Your task to perform on an android device: toggle data saver in the chrome app Image 0: 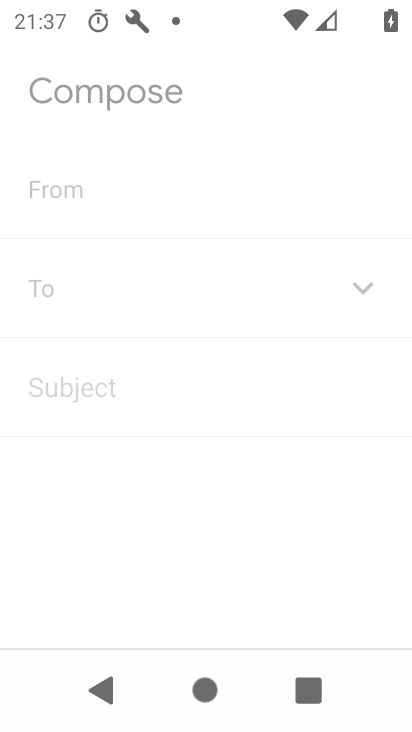
Step 0: drag from (268, 655) to (209, 178)
Your task to perform on an android device: toggle data saver in the chrome app Image 1: 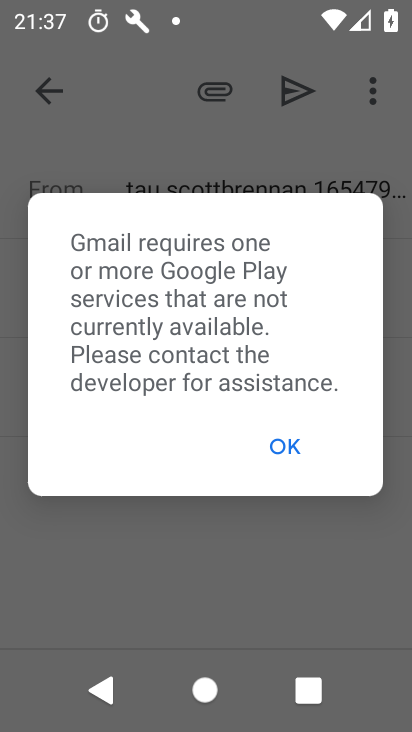
Step 1: press back button
Your task to perform on an android device: toggle data saver in the chrome app Image 2: 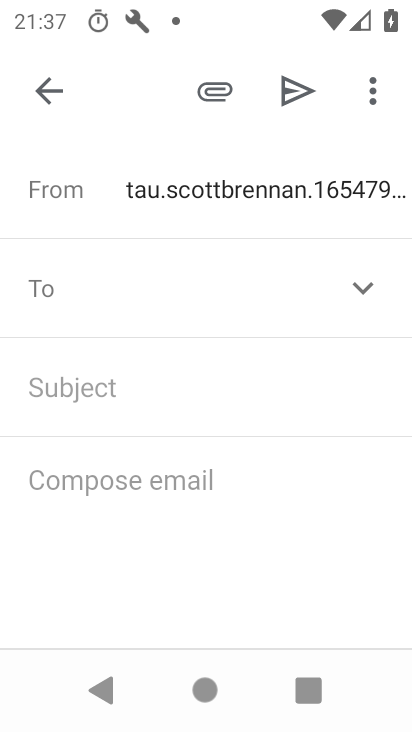
Step 2: click (46, 74)
Your task to perform on an android device: toggle data saver in the chrome app Image 3: 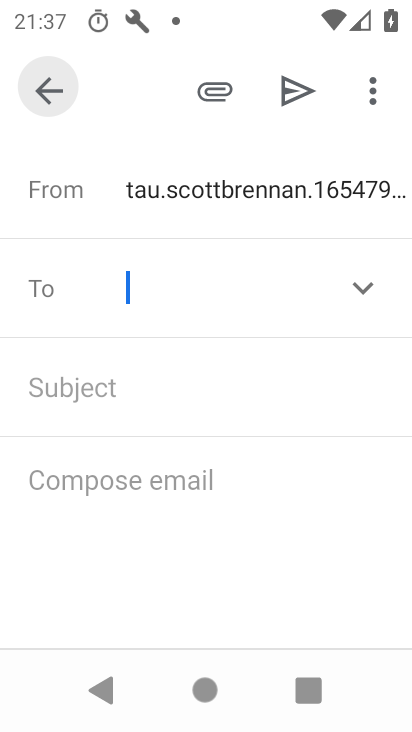
Step 3: click (47, 80)
Your task to perform on an android device: toggle data saver in the chrome app Image 4: 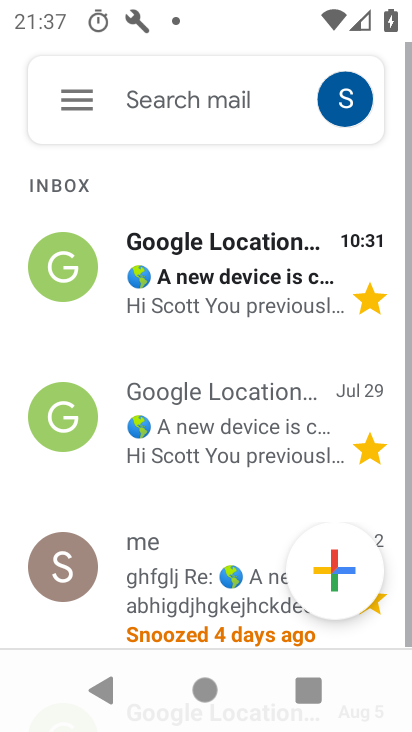
Step 4: press back button
Your task to perform on an android device: toggle data saver in the chrome app Image 5: 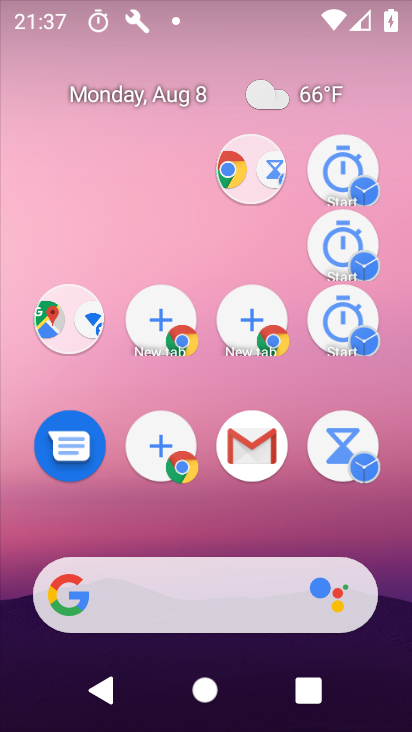
Step 5: drag from (223, 280) to (219, 220)
Your task to perform on an android device: toggle data saver in the chrome app Image 6: 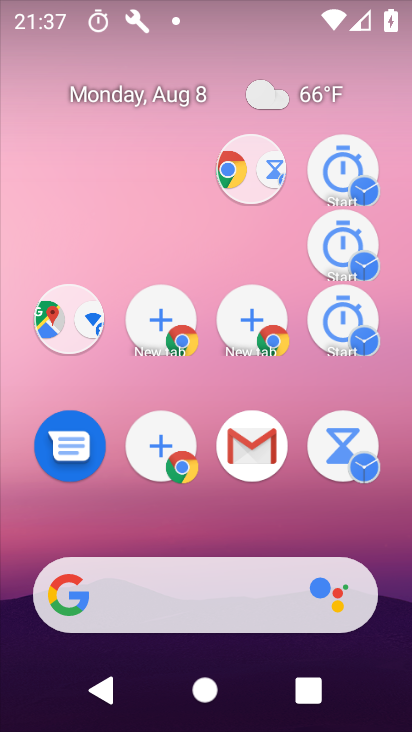
Step 6: drag from (252, 460) to (216, 203)
Your task to perform on an android device: toggle data saver in the chrome app Image 7: 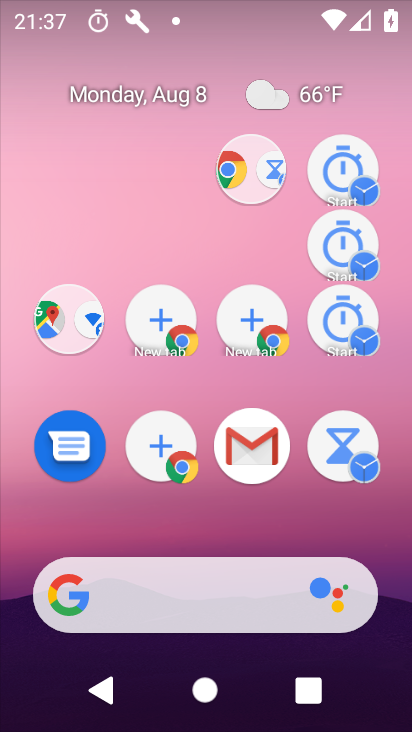
Step 7: drag from (238, 630) to (204, 168)
Your task to perform on an android device: toggle data saver in the chrome app Image 8: 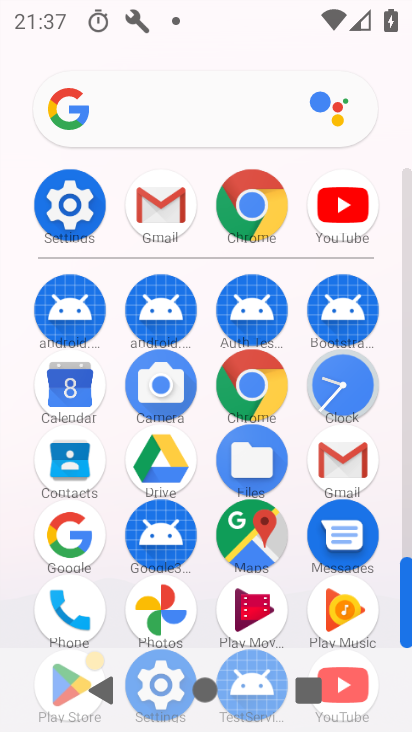
Step 8: click (261, 224)
Your task to perform on an android device: toggle data saver in the chrome app Image 9: 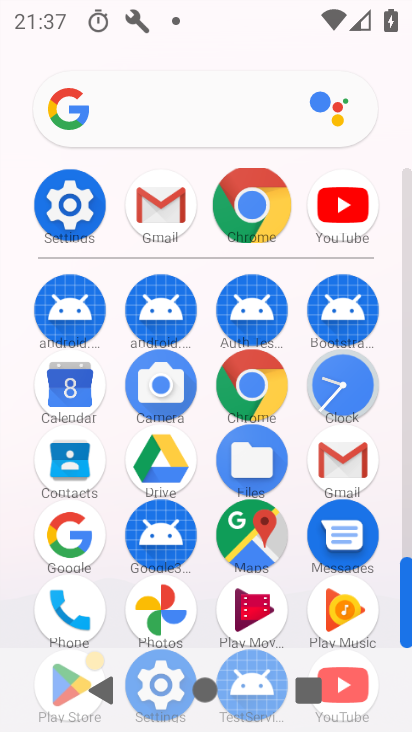
Step 9: click (260, 216)
Your task to perform on an android device: toggle data saver in the chrome app Image 10: 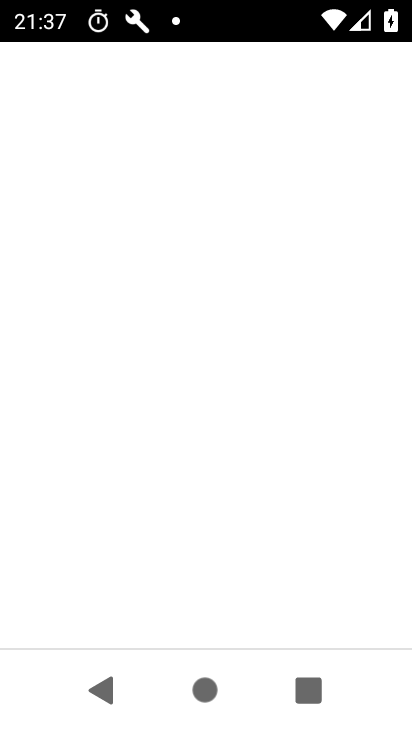
Step 10: click (260, 214)
Your task to perform on an android device: toggle data saver in the chrome app Image 11: 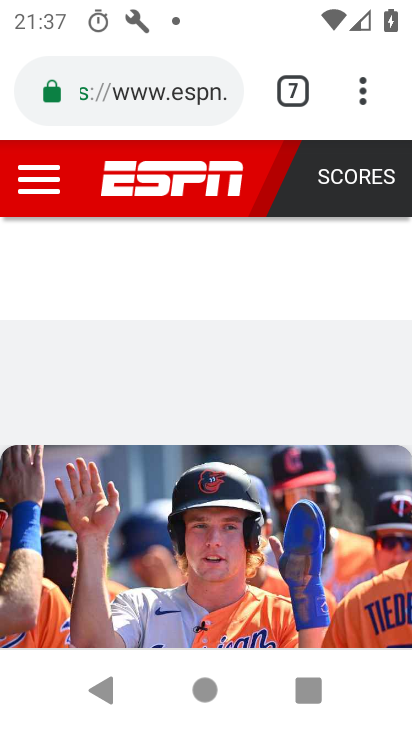
Step 11: drag from (367, 83) to (73, 470)
Your task to perform on an android device: toggle data saver in the chrome app Image 12: 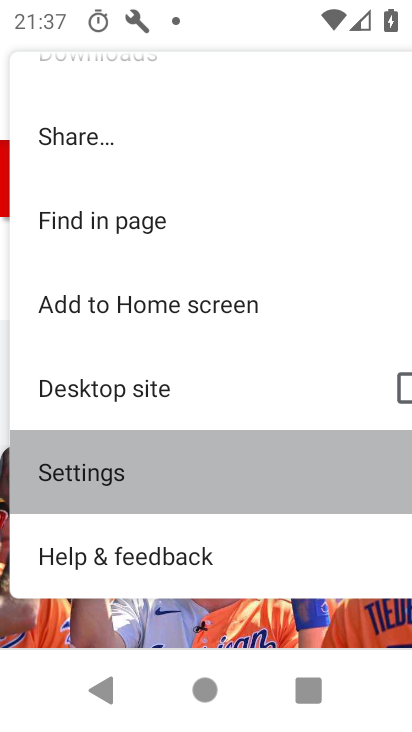
Step 12: click (74, 470)
Your task to perform on an android device: toggle data saver in the chrome app Image 13: 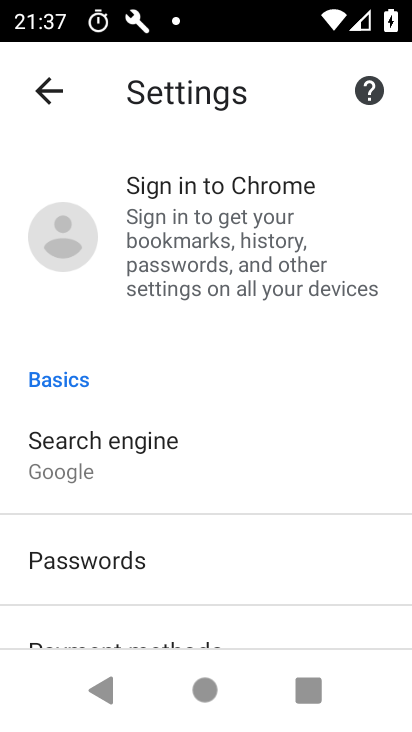
Step 13: drag from (182, 547) to (166, 224)
Your task to perform on an android device: toggle data saver in the chrome app Image 14: 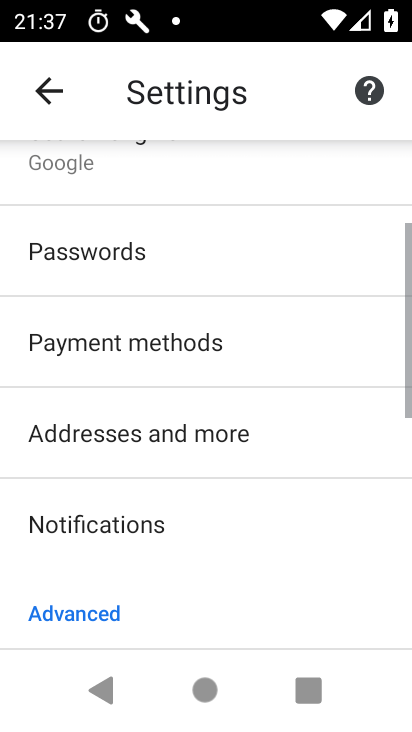
Step 14: drag from (211, 461) to (234, 224)
Your task to perform on an android device: toggle data saver in the chrome app Image 15: 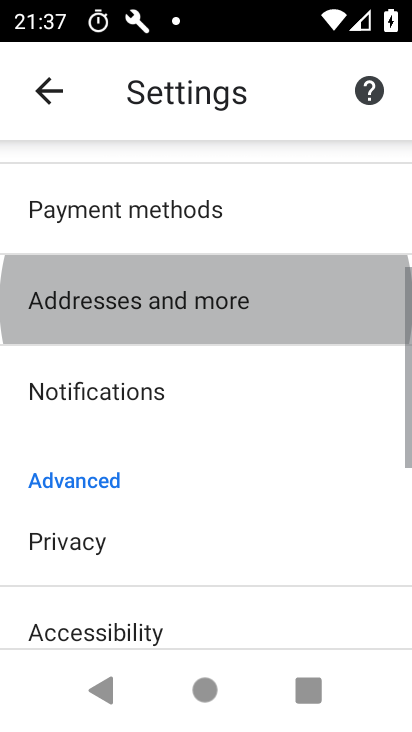
Step 15: drag from (257, 454) to (253, 103)
Your task to perform on an android device: toggle data saver in the chrome app Image 16: 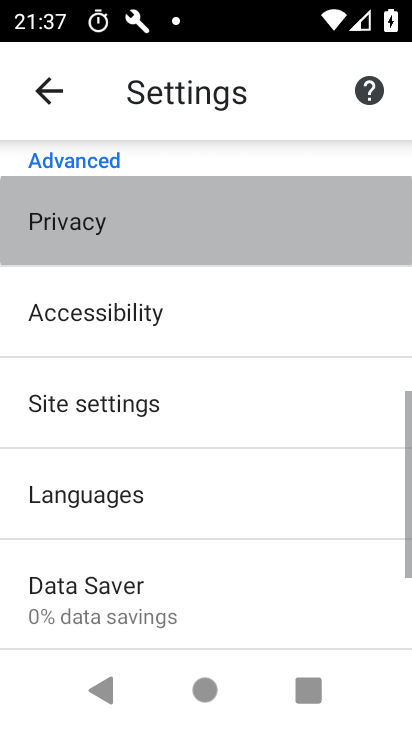
Step 16: drag from (244, 449) to (239, 245)
Your task to perform on an android device: toggle data saver in the chrome app Image 17: 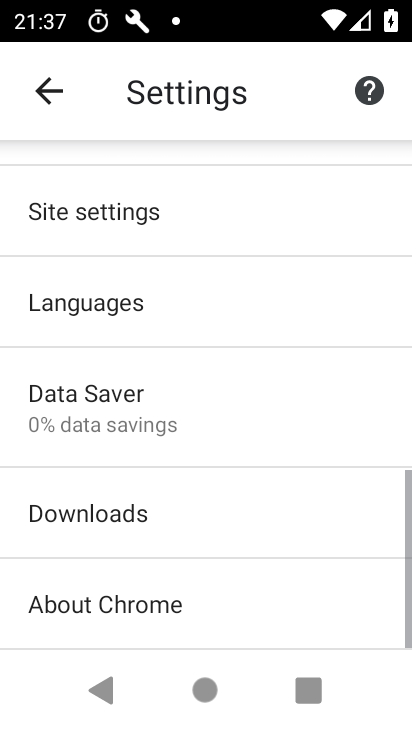
Step 17: click (89, 411)
Your task to perform on an android device: toggle data saver in the chrome app Image 18: 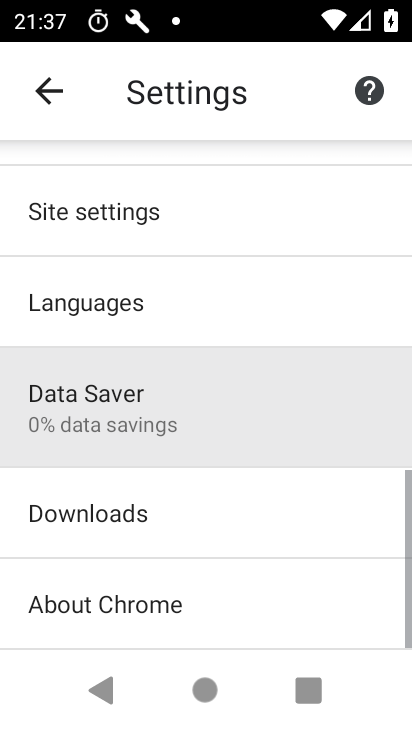
Step 18: click (89, 411)
Your task to perform on an android device: toggle data saver in the chrome app Image 19: 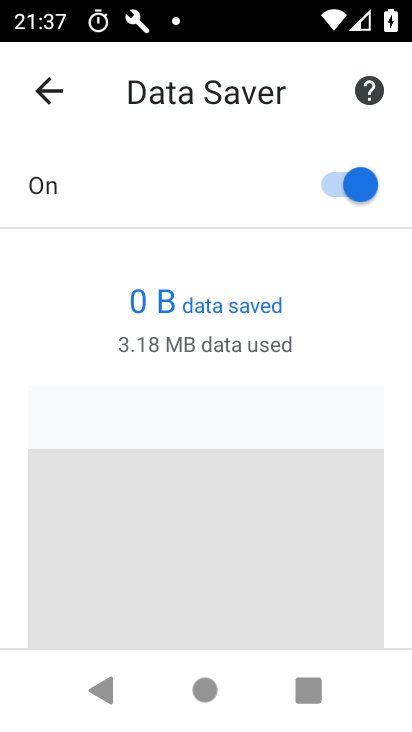
Step 19: click (377, 185)
Your task to perform on an android device: toggle data saver in the chrome app Image 20: 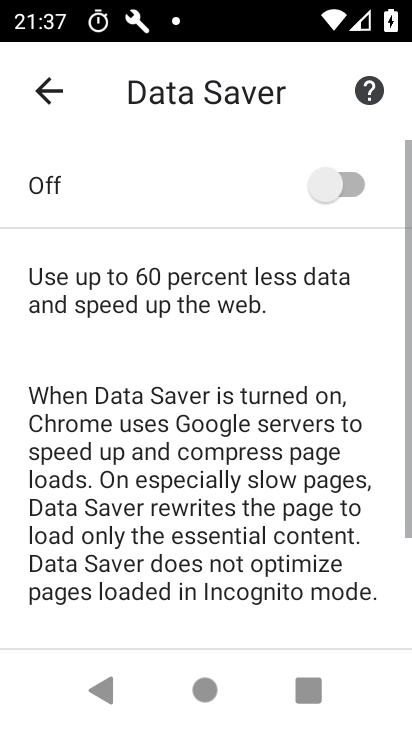
Step 20: task complete